Your task to perform on an android device: turn off data saver in the chrome app Image 0: 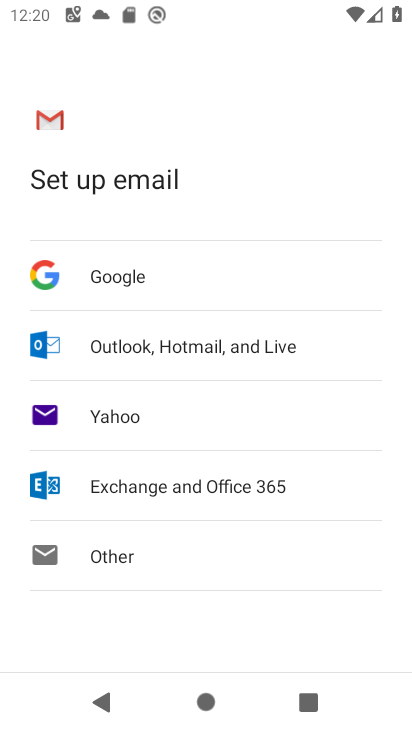
Step 0: press home button
Your task to perform on an android device: turn off data saver in the chrome app Image 1: 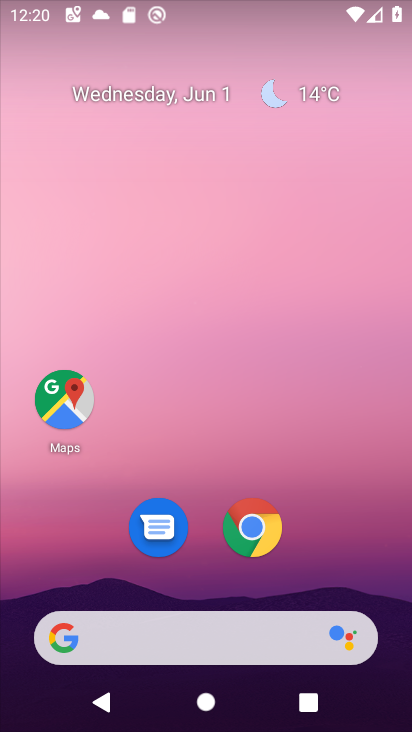
Step 1: click (249, 534)
Your task to perform on an android device: turn off data saver in the chrome app Image 2: 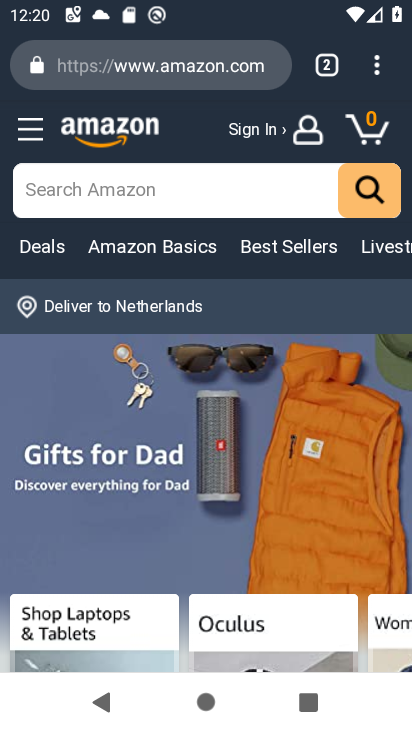
Step 2: click (380, 66)
Your task to perform on an android device: turn off data saver in the chrome app Image 3: 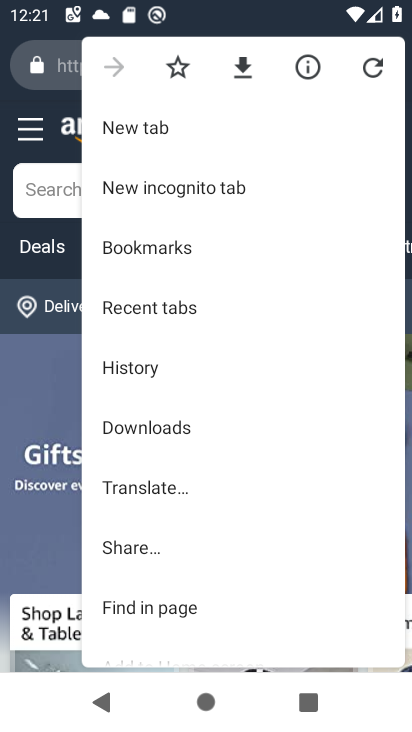
Step 3: drag from (259, 589) to (243, 193)
Your task to perform on an android device: turn off data saver in the chrome app Image 4: 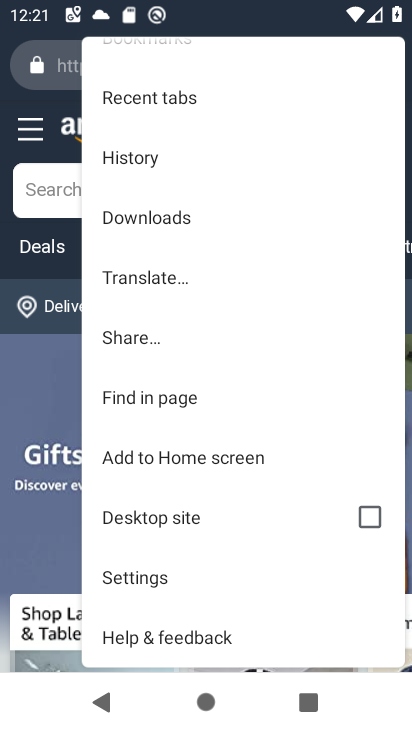
Step 4: click (132, 576)
Your task to perform on an android device: turn off data saver in the chrome app Image 5: 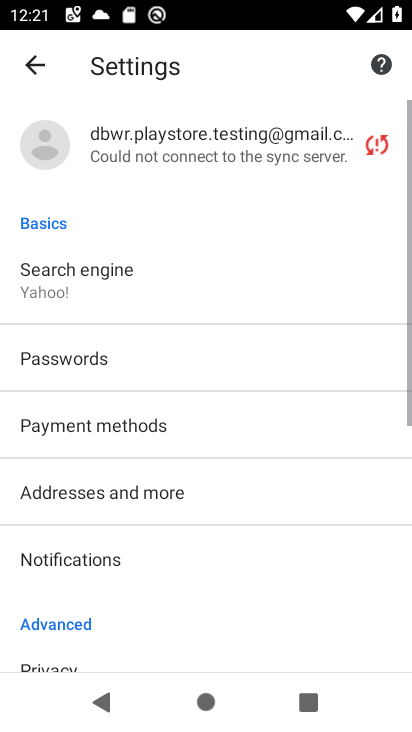
Step 5: drag from (132, 576) to (135, 198)
Your task to perform on an android device: turn off data saver in the chrome app Image 6: 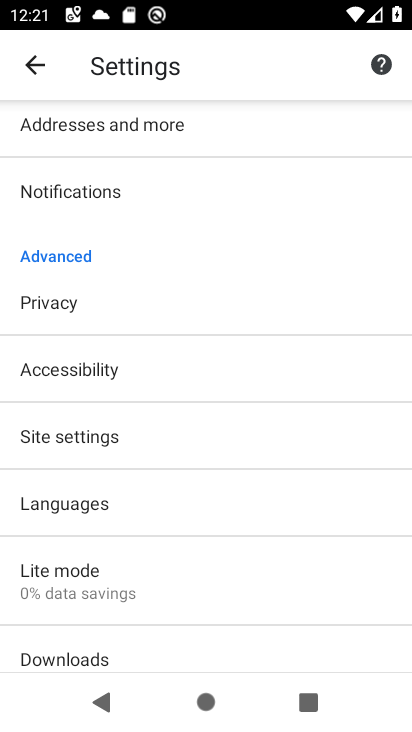
Step 6: click (84, 574)
Your task to perform on an android device: turn off data saver in the chrome app Image 7: 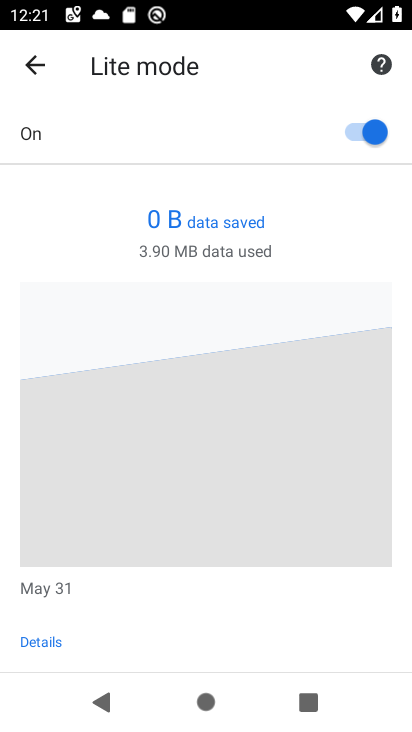
Step 7: click (368, 136)
Your task to perform on an android device: turn off data saver in the chrome app Image 8: 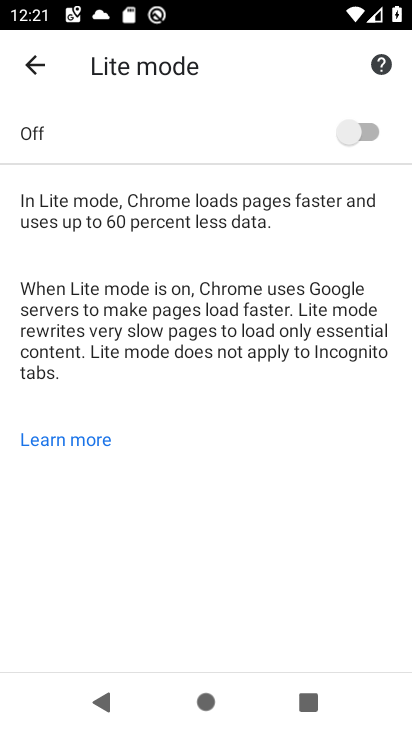
Step 8: task complete